Your task to perform on an android device: Go to internet settings Image 0: 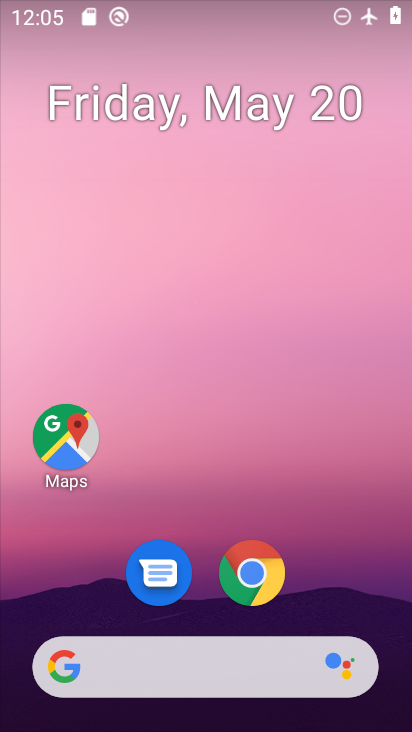
Step 0: drag from (225, 729) to (178, 14)
Your task to perform on an android device: Go to internet settings Image 1: 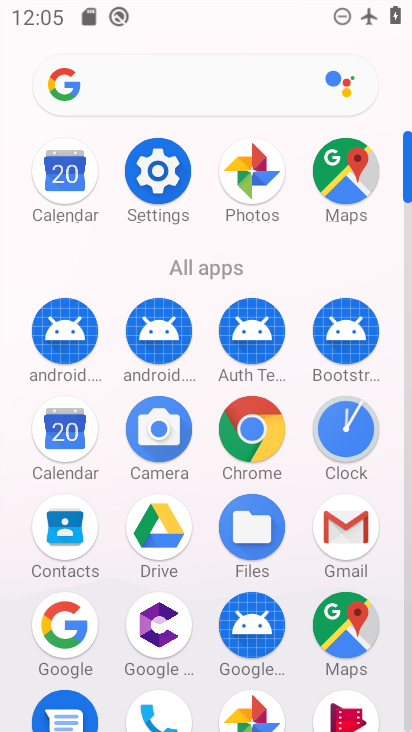
Step 1: click (163, 166)
Your task to perform on an android device: Go to internet settings Image 2: 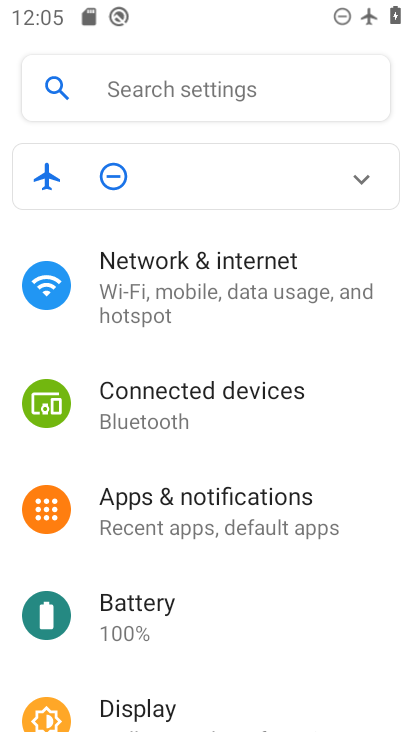
Step 2: click (170, 281)
Your task to perform on an android device: Go to internet settings Image 3: 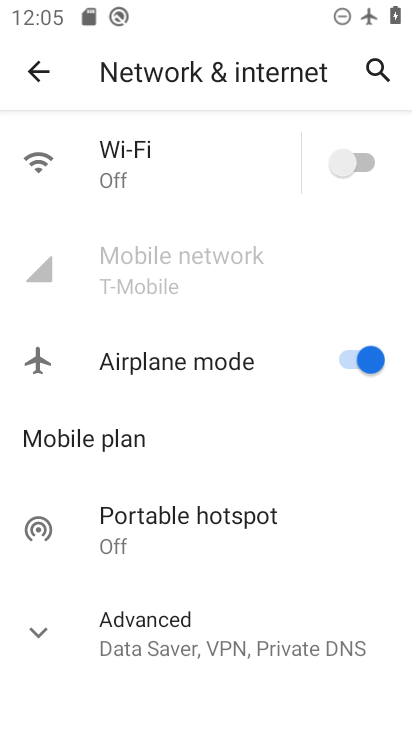
Step 3: task complete